Your task to perform on an android device: Go to Yahoo.com Image 0: 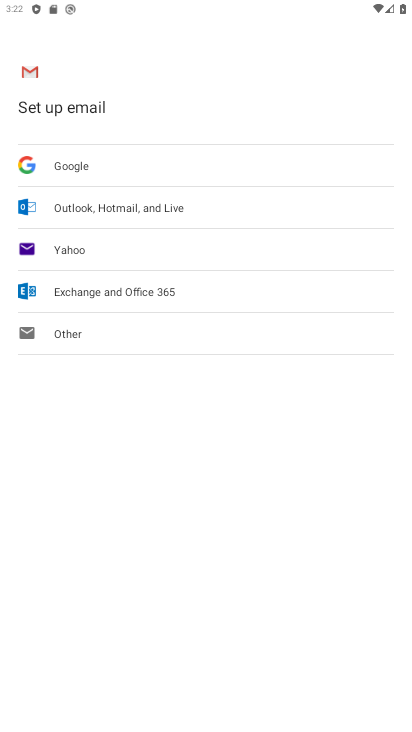
Step 0: press home button
Your task to perform on an android device: Go to Yahoo.com Image 1: 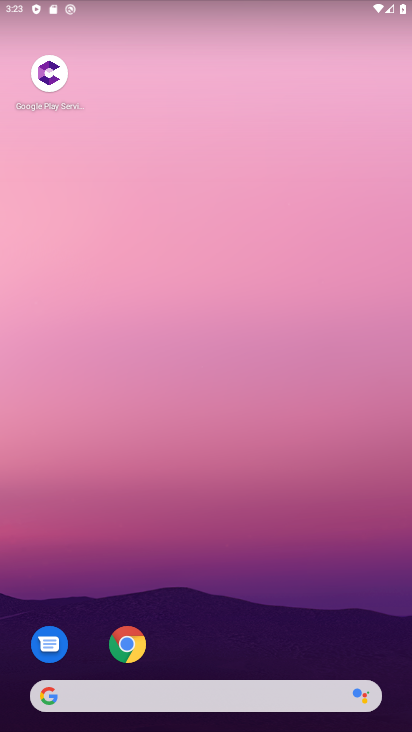
Step 1: click (128, 642)
Your task to perform on an android device: Go to Yahoo.com Image 2: 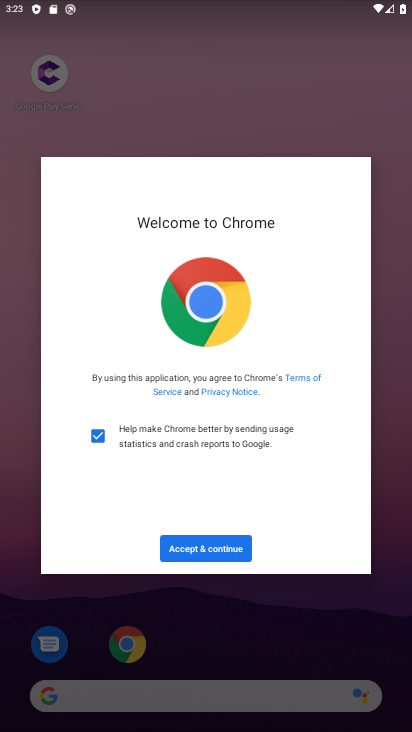
Step 2: click (236, 542)
Your task to perform on an android device: Go to Yahoo.com Image 3: 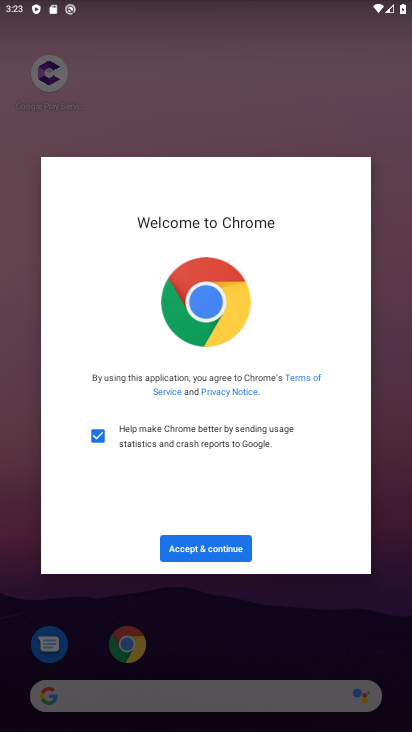
Step 3: click (338, 544)
Your task to perform on an android device: Go to Yahoo.com Image 4: 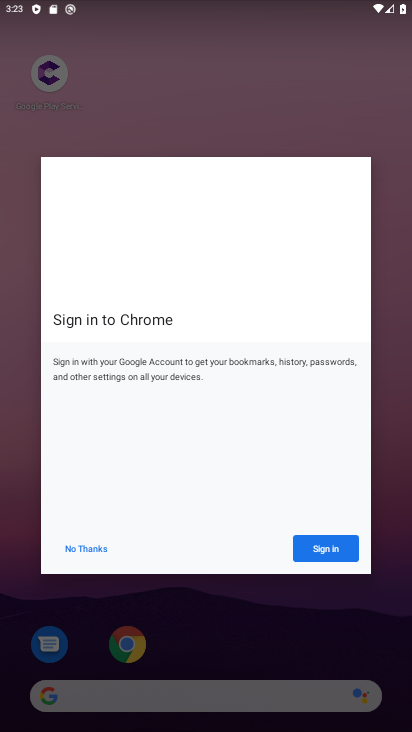
Step 4: click (338, 544)
Your task to perform on an android device: Go to Yahoo.com Image 5: 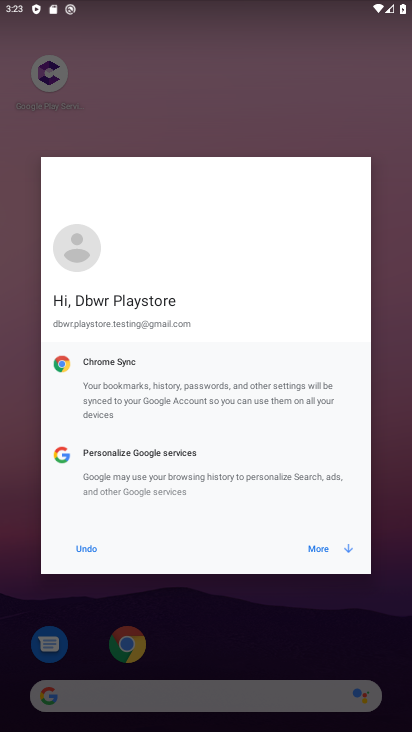
Step 5: click (338, 544)
Your task to perform on an android device: Go to Yahoo.com Image 6: 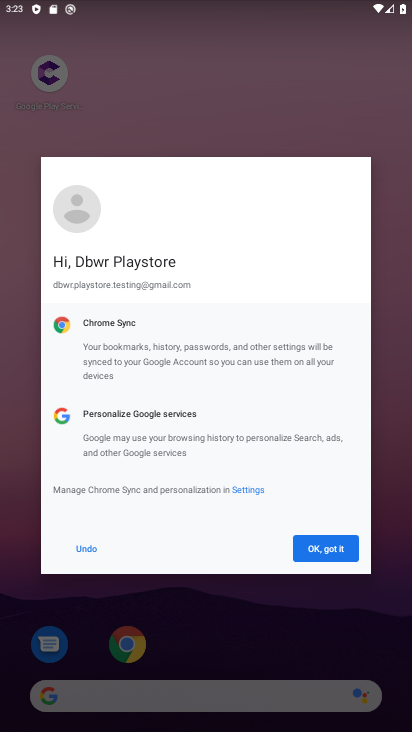
Step 6: click (341, 547)
Your task to perform on an android device: Go to Yahoo.com Image 7: 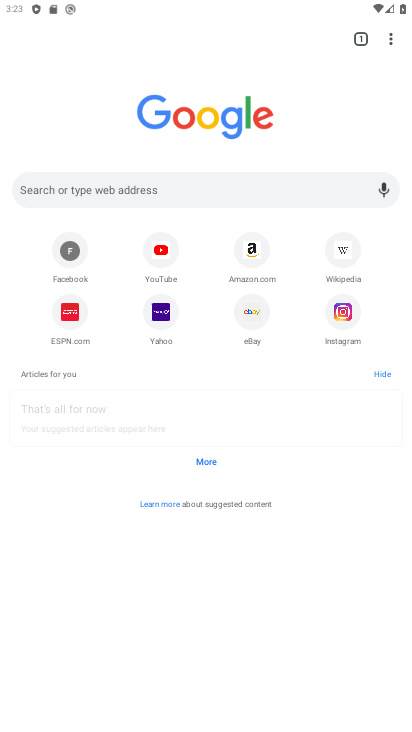
Step 7: click (157, 301)
Your task to perform on an android device: Go to Yahoo.com Image 8: 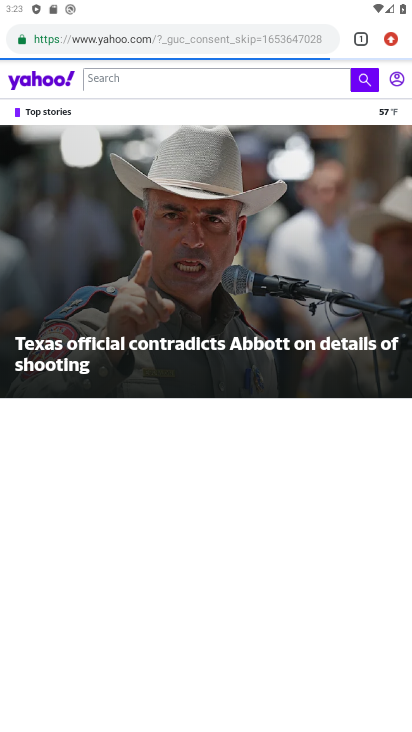
Step 8: task complete